Your task to perform on an android device: Search for seafood restaurants on Google Maps Image 0: 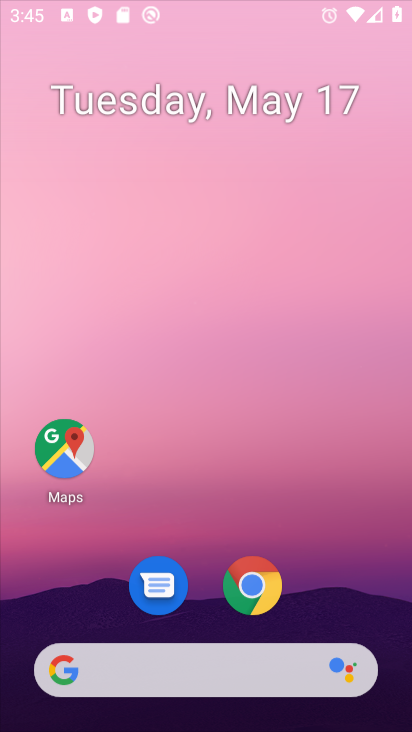
Step 0: click (278, 207)
Your task to perform on an android device: Search for seafood restaurants on Google Maps Image 1: 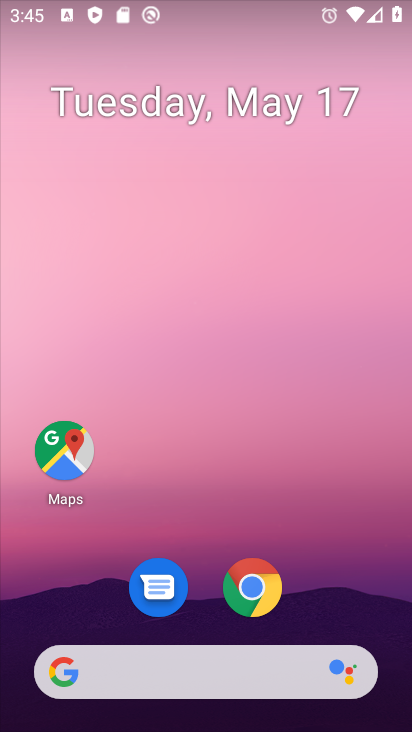
Step 1: drag from (211, 599) to (262, 140)
Your task to perform on an android device: Search for seafood restaurants on Google Maps Image 2: 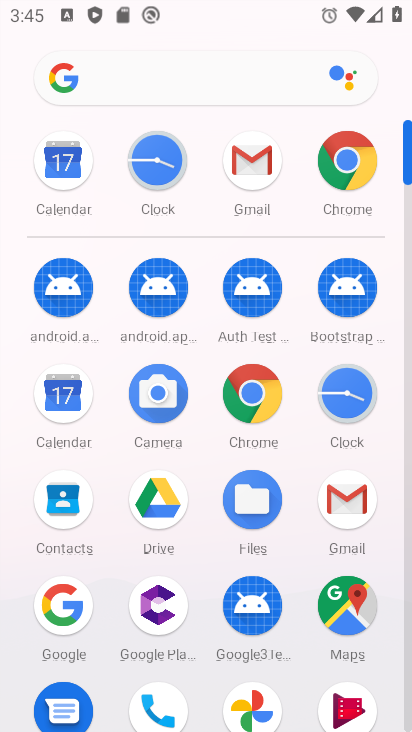
Step 2: drag from (197, 647) to (241, 196)
Your task to perform on an android device: Search for seafood restaurants on Google Maps Image 3: 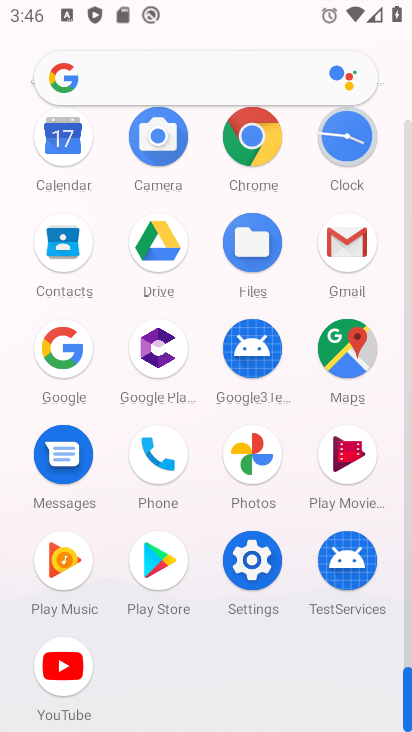
Step 3: click (333, 355)
Your task to perform on an android device: Search for seafood restaurants on Google Maps Image 4: 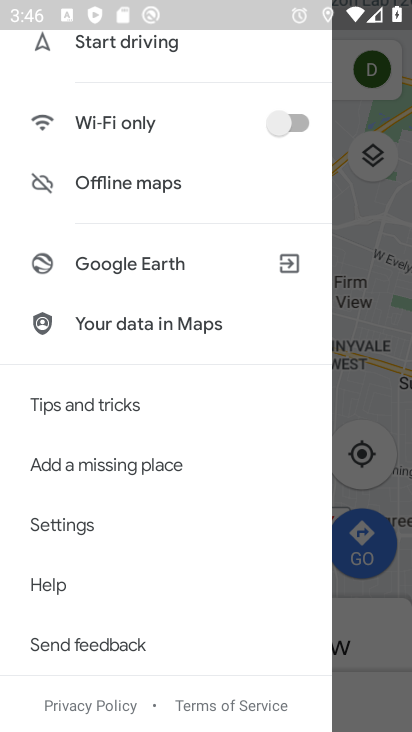
Step 4: click (379, 293)
Your task to perform on an android device: Search for seafood restaurants on Google Maps Image 5: 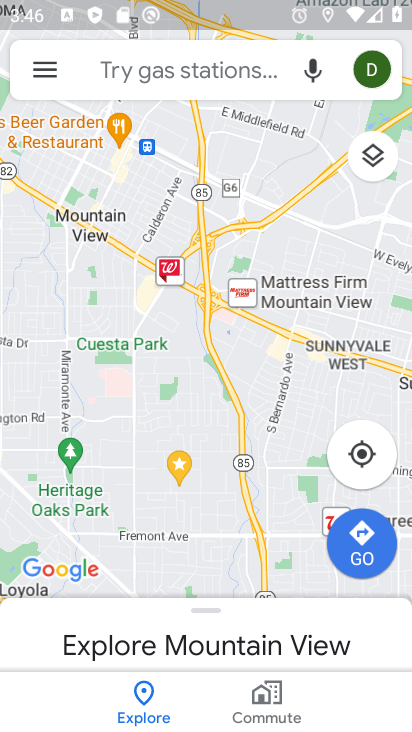
Step 5: click (202, 60)
Your task to perform on an android device: Search for seafood restaurants on Google Maps Image 6: 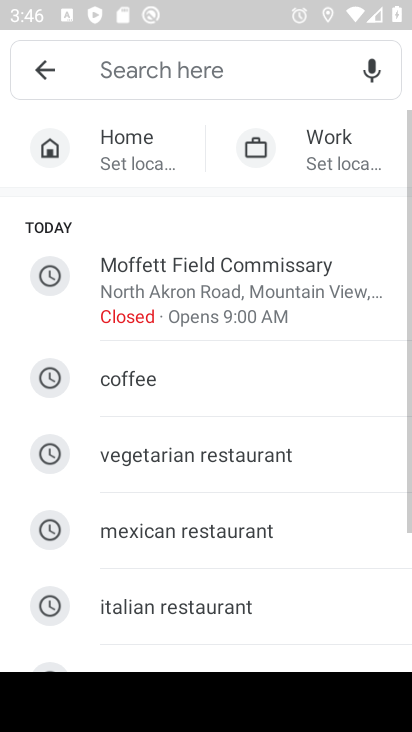
Step 6: drag from (198, 558) to (229, 254)
Your task to perform on an android device: Search for seafood restaurants on Google Maps Image 7: 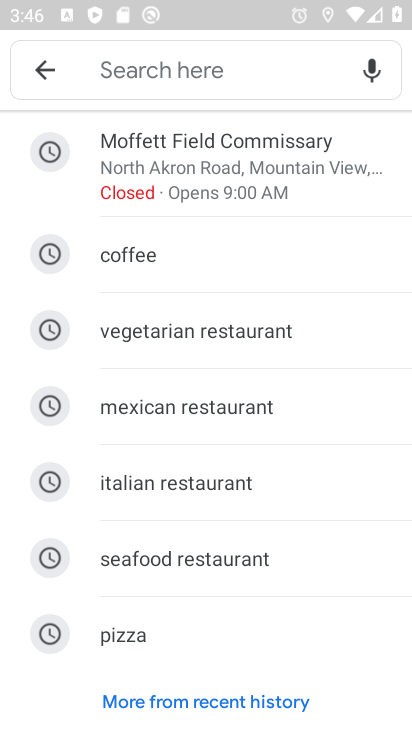
Step 7: click (151, 560)
Your task to perform on an android device: Search for seafood restaurants on Google Maps Image 8: 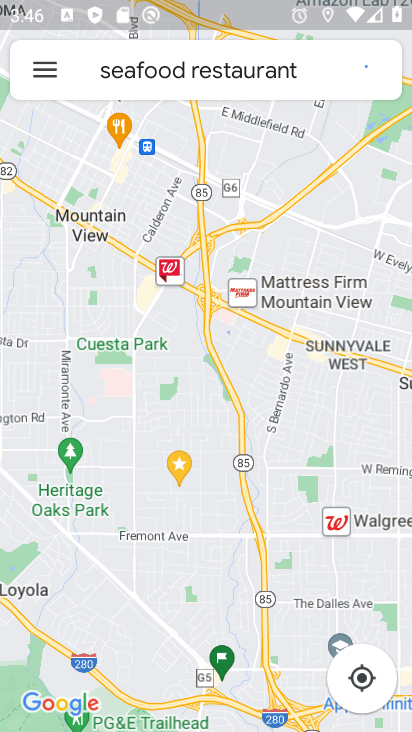
Step 8: task complete